Your task to perform on an android device: Open the map Image 0: 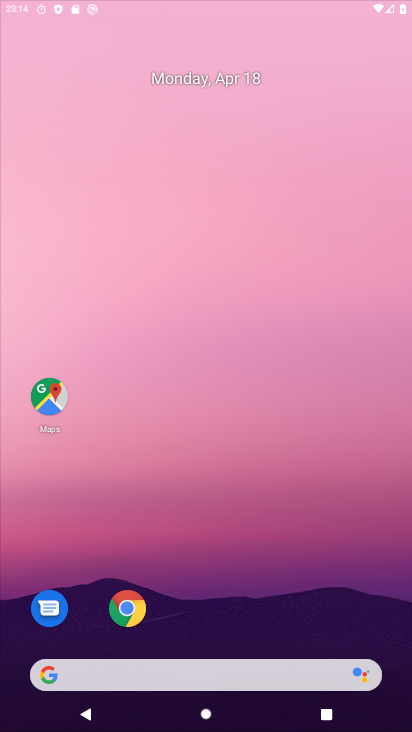
Step 0: click (232, 182)
Your task to perform on an android device: Open the map Image 1: 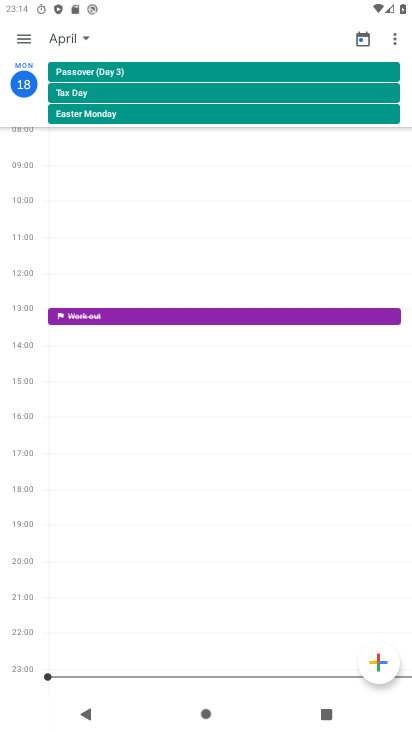
Step 1: press home button
Your task to perform on an android device: Open the map Image 2: 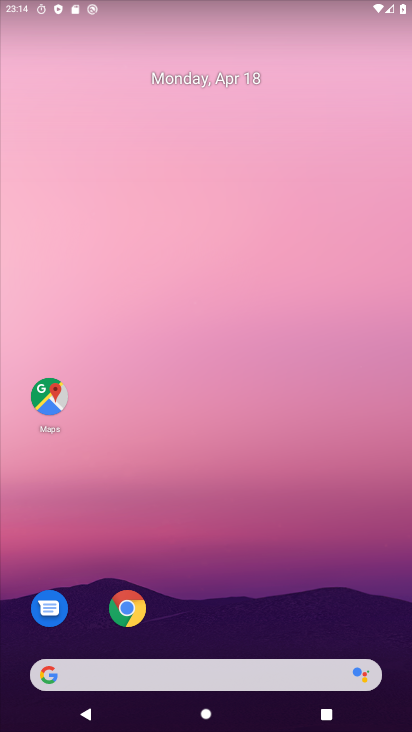
Step 2: drag from (224, 608) to (242, 263)
Your task to perform on an android device: Open the map Image 3: 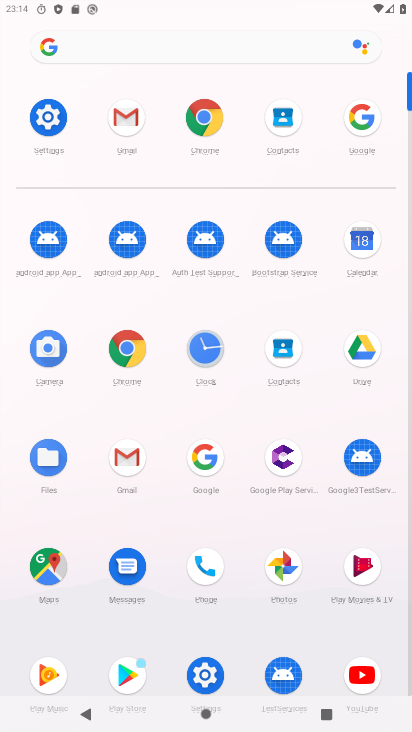
Step 3: click (47, 568)
Your task to perform on an android device: Open the map Image 4: 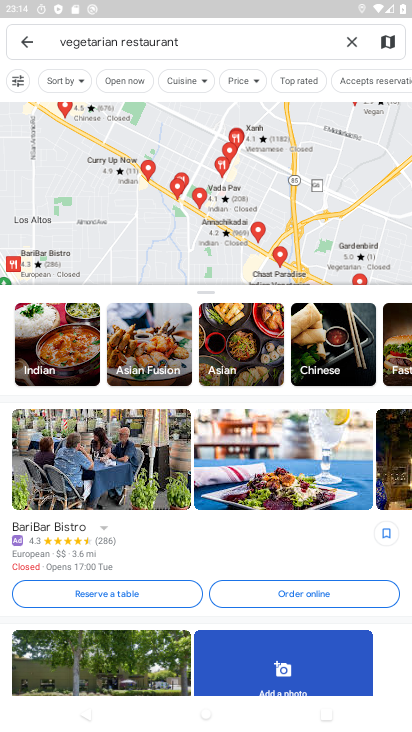
Step 4: task complete